Your task to perform on an android device: move a message to another label in the gmail app Image 0: 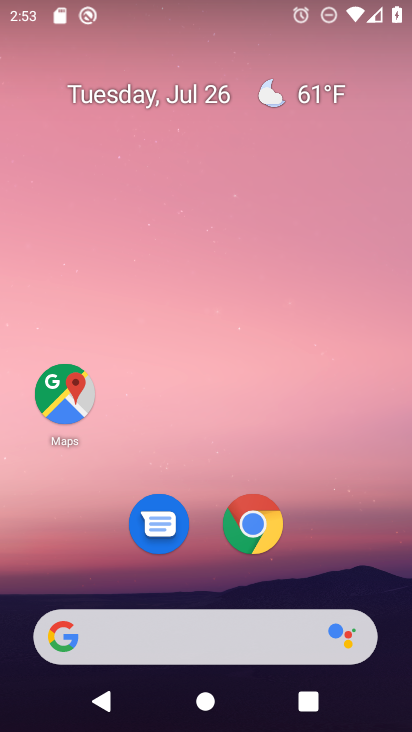
Step 0: press home button
Your task to perform on an android device: move a message to another label in the gmail app Image 1: 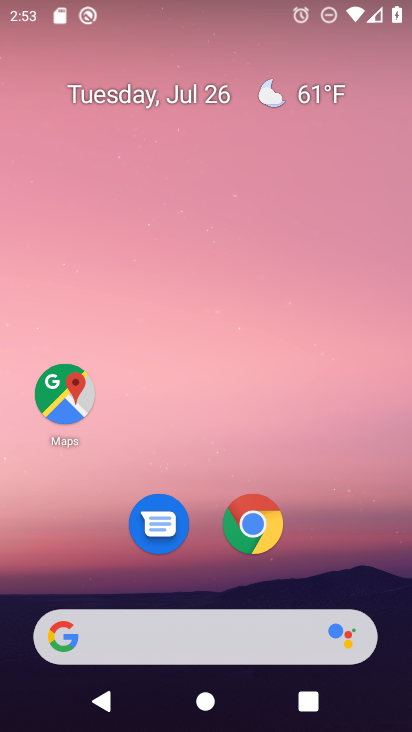
Step 1: drag from (194, 606) to (314, 92)
Your task to perform on an android device: move a message to another label in the gmail app Image 2: 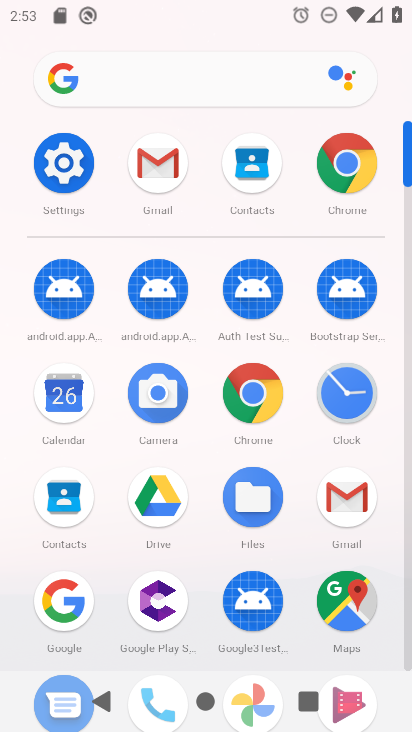
Step 2: click (147, 164)
Your task to perform on an android device: move a message to another label in the gmail app Image 3: 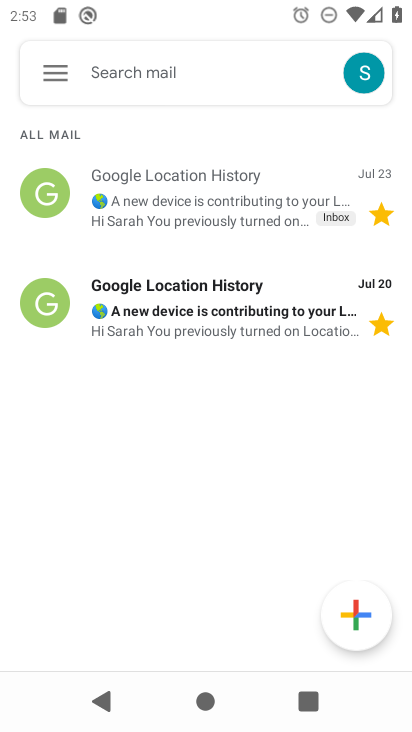
Step 3: click (139, 319)
Your task to perform on an android device: move a message to another label in the gmail app Image 4: 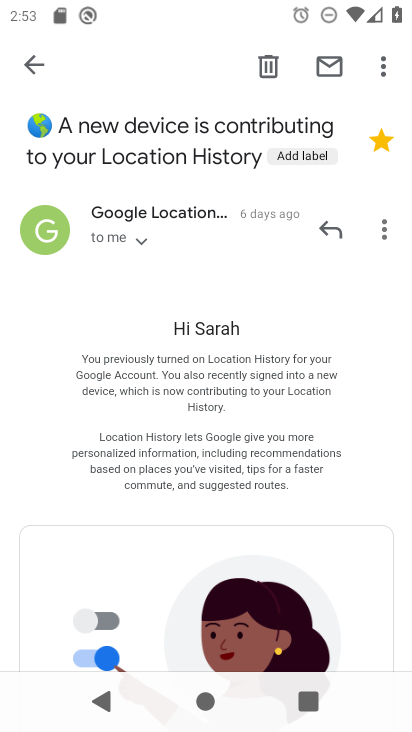
Step 4: click (306, 156)
Your task to perform on an android device: move a message to another label in the gmail app Image 5: 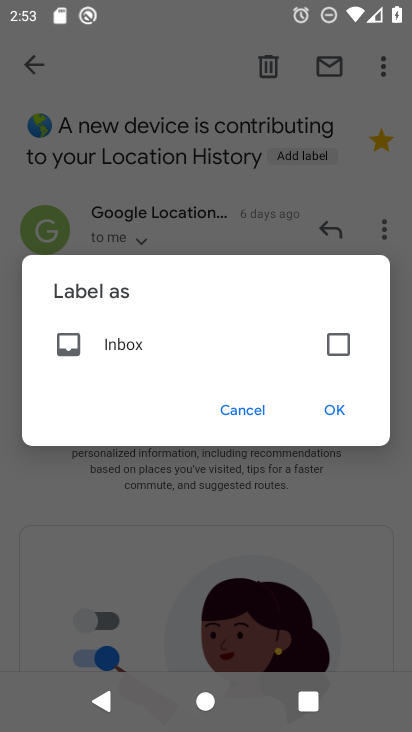
Step 5: click (332, 343)
Your task to perform on an android device: move a message to another label in the gmail app Image 6: 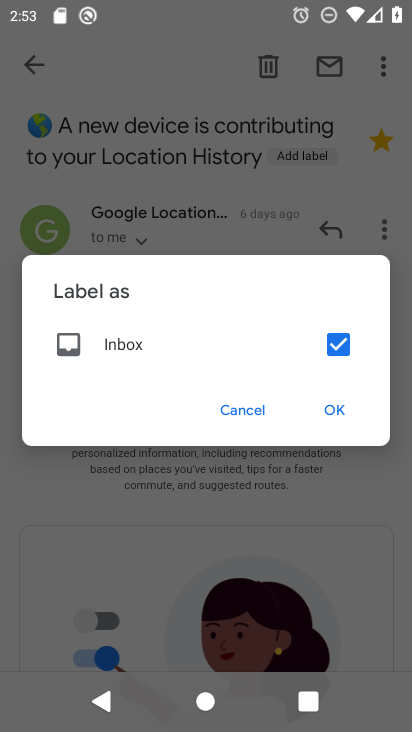
Step 6: click (333, 408)
Your task to perform on an android device: move a message to another label in the gmail app Image 7: 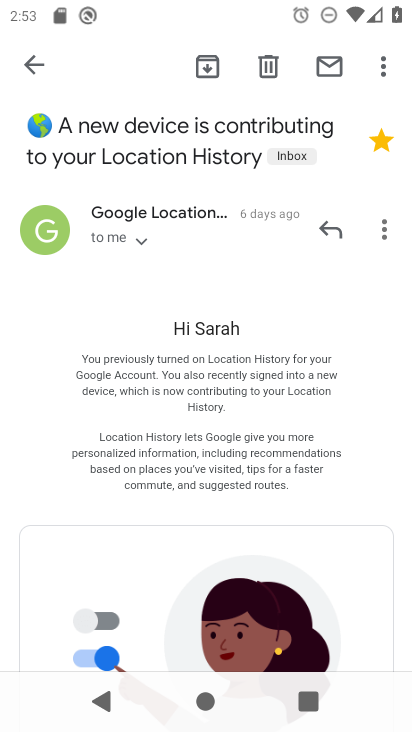
Step 7: task complete